Your task to perform on an android device: Open the calendar app, open the side menu, and click the "Day" option Image 0: 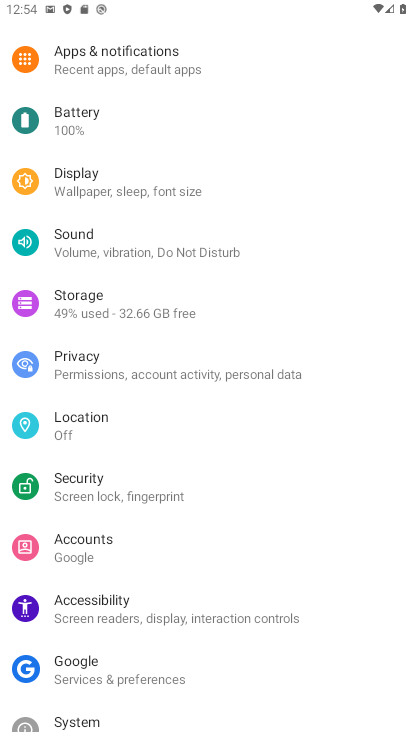
Step 0: press home button
Your task to perform on an android device: Open the calendar app, open the side menu, and click the "Day" option Image 1: 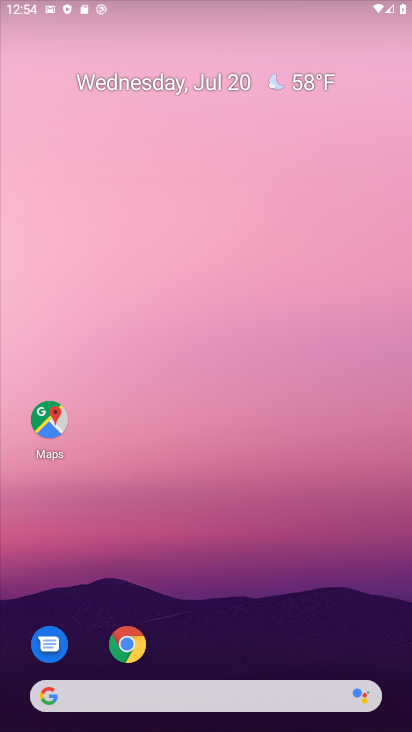
Step 1: drag from (185, 667) to (180, 141)
Your task to perform on an android device: Open the calendar app, open the side menu, and click the "Day" option Image 2: 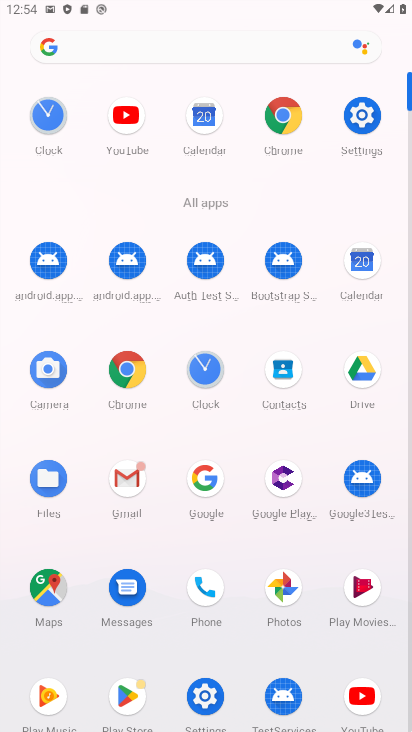
Step 2: click (363, 264)
Your task to perform on an android device: Open the calendar app, open the side menu, and click the "Day" option Image 3: 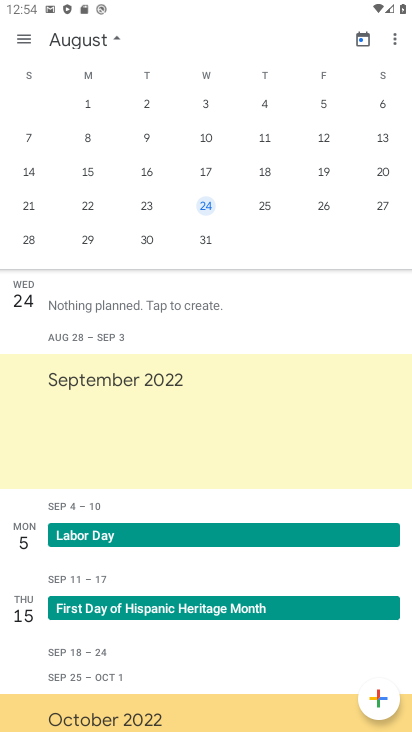
Step 3: drag from (53, 229) to (386, 208)
Your task to perform on an android device: Open the calendar app, open the side menu, and click the "Day" option Image 4: 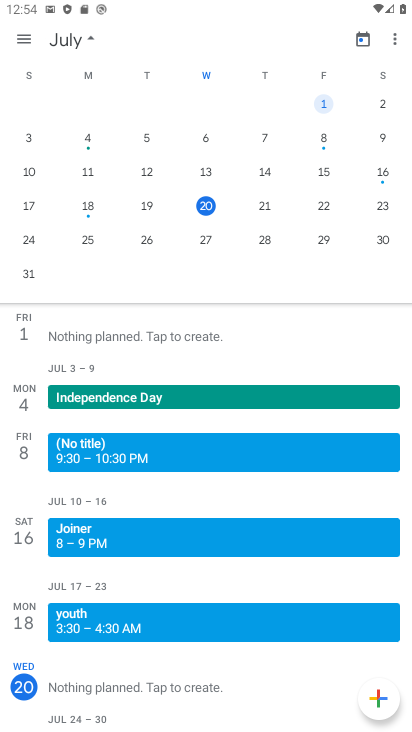
Step 4: click (203, 208)
Your task to perform on an android device: Open the calendar app, open the side menu, and click the "Day" option Image 5: 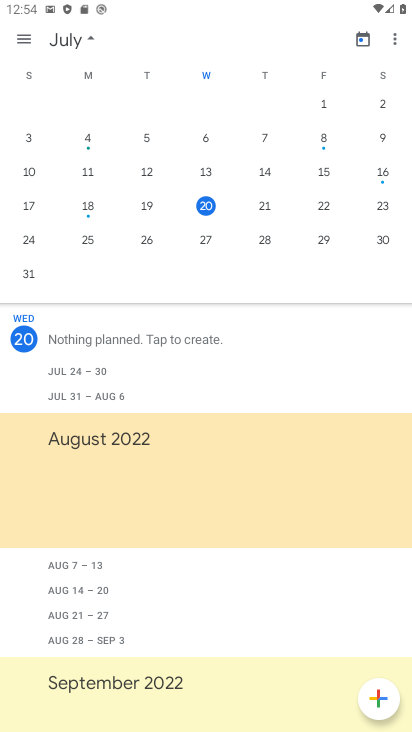
Step 5: click (28, 39)
Your task to perform on an android device: Open the calendar app, open the side menu, and click the "Day" option Image 6: 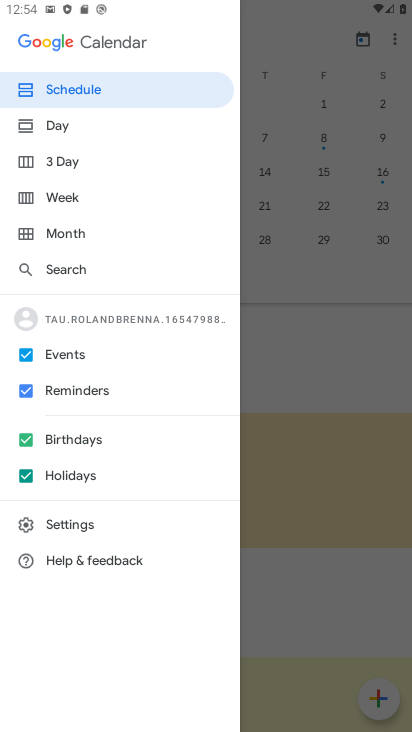
Step 6: click (83, 123)
Your task to perform on an android device: Open the calendar app, open the side menu, and click the "Day" option Image 7: 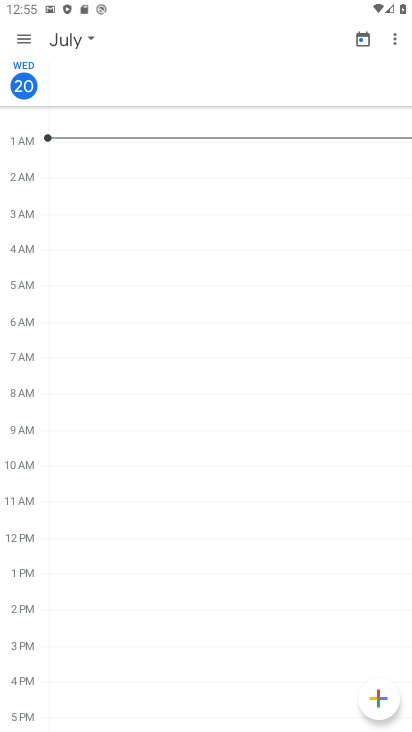
Step 7: task complete